Your task to perform on an android device: Check the settings for the Spotify app Image 0: 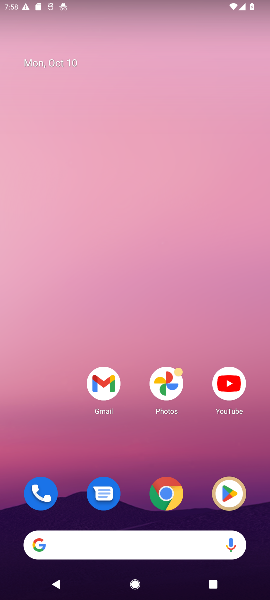
Step 0: click (109, 542)
Your task to perform on an android device: Check the settings for the Spotify app Image 1: 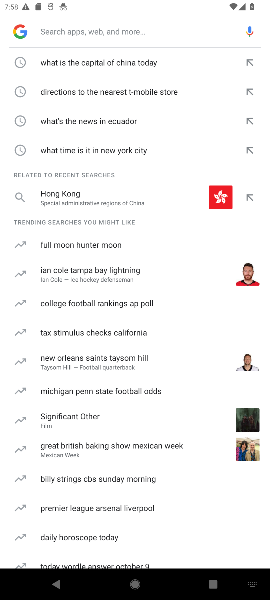
Step 1: press back button
Your task to perform on an android device: Check the settings for the Spotify app Image 2: 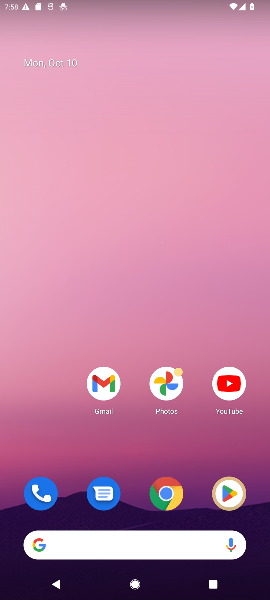
Step 2: click (227, 493)
Your task to perform on an android device: Check the settings for the Spotify app Image 3: 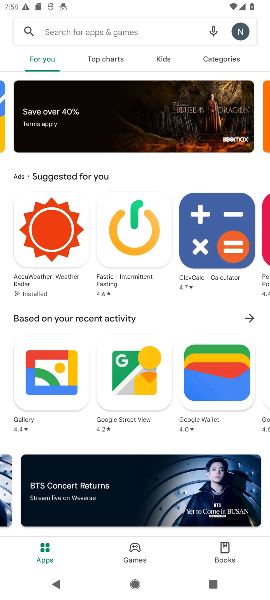
Step 3: click (114, 35)
Your task to perform on an android device: Check the settings for the Spotify app Image 4: 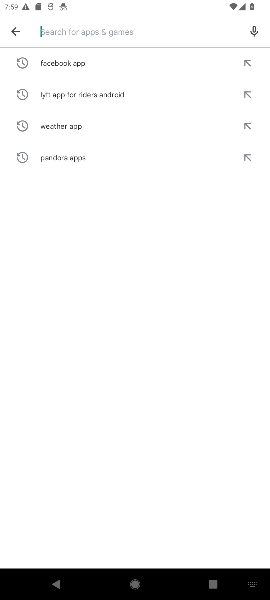
Step 4: type "Spotify"
Your task to perform on an android device: Check the settings for the Spotify app Image 5: 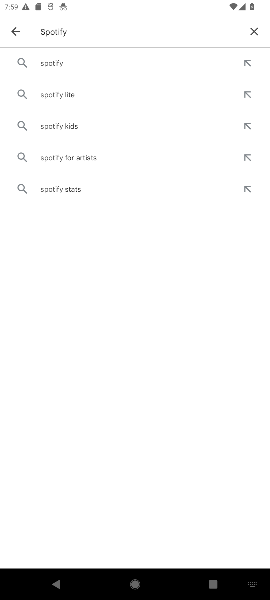
Step 5: click (56, 63)
Your task to perform on an android device: Check the settings for the Spotify app Image 6: 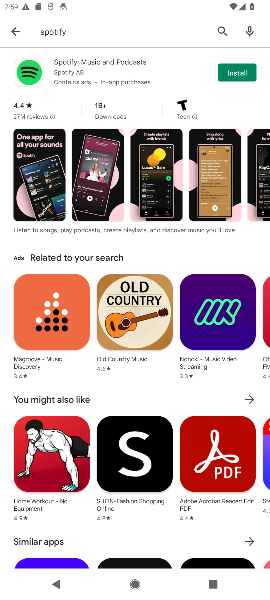
Step 6: click (221, 72)
Your task to perform on an android device: Check the settings for the Spotify app Image 7: 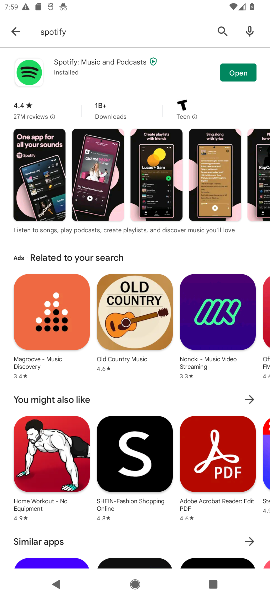
Step 7: click (221, 72)
Your task to perform on an android device: Check the settings for the Spotify app Image 8: 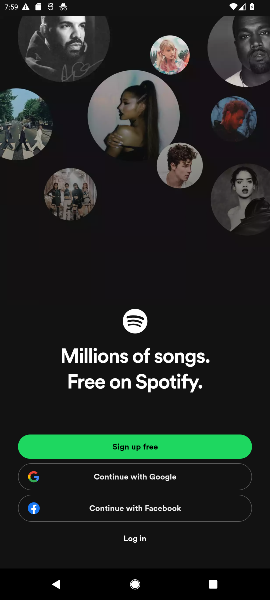
Step 8: task complete